Your task to perform on an android device: open app "Facebook Lite" (install if not already installed) Image 0: 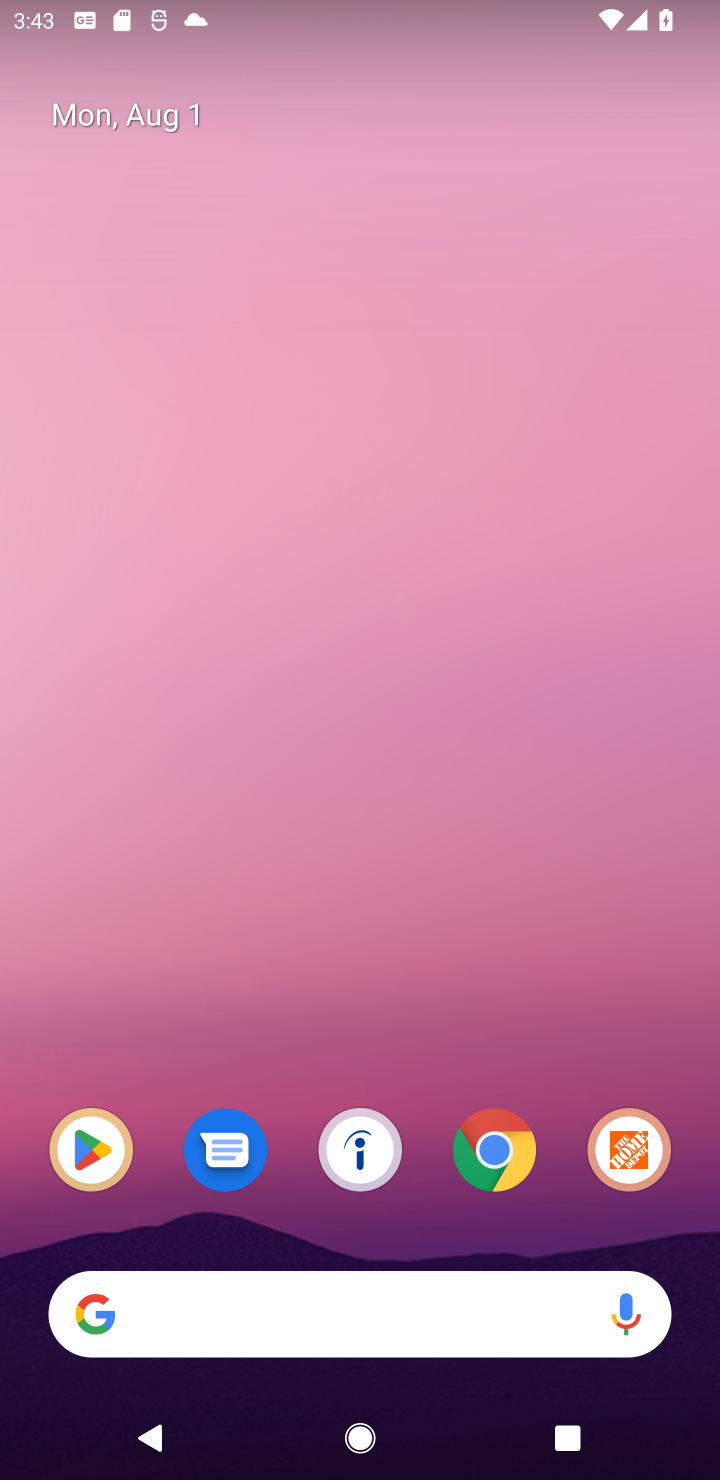
Step 0: drag from (283, 1237) to (434, 7)
Your task to perform on an android device: open app "Facebook Lite" (install if not already installed) Image 1: 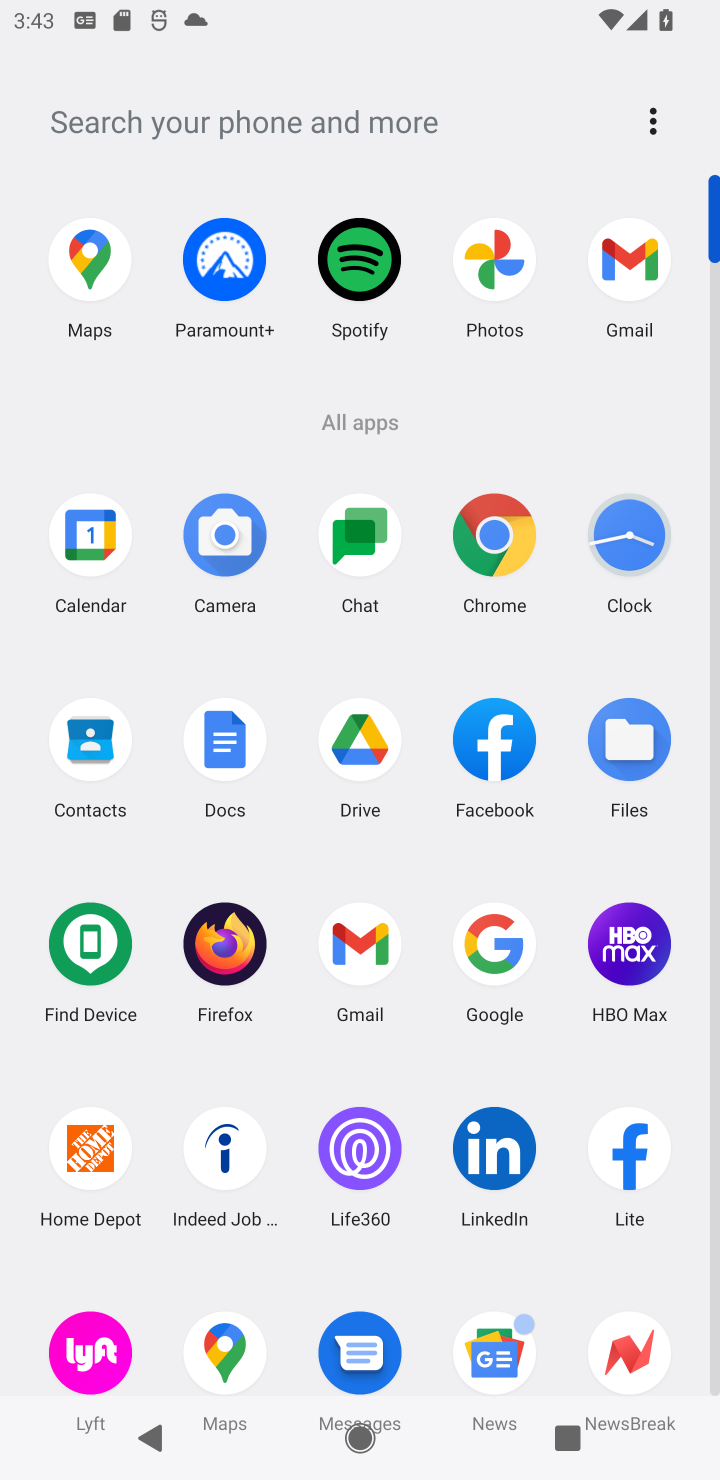
Step 1: click (642, 1199)
Your task to perform on an android device: open app "Facebook Lite" (install if not already installed) Image 2: 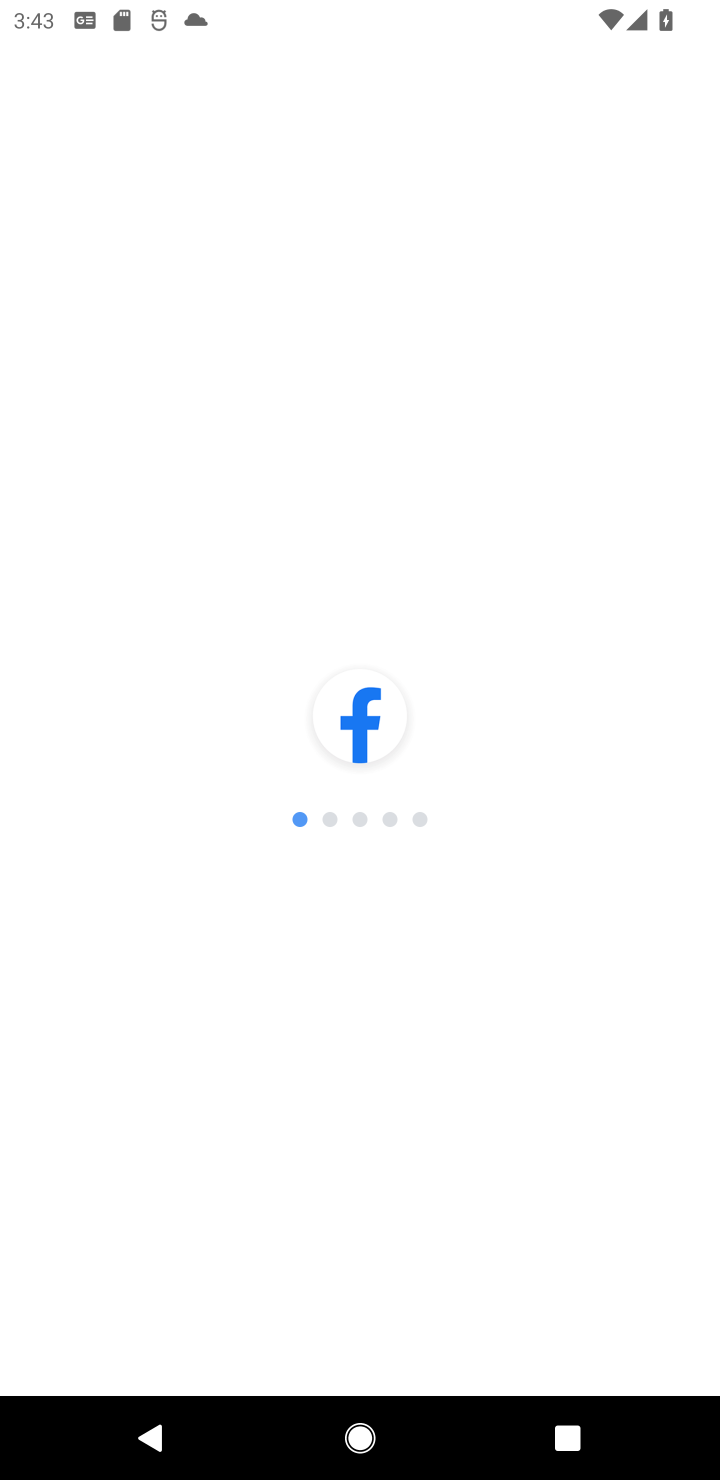
Step 2: task complete